Your task to perform on an android device: turn off priority inbox in the gmail app Image 0: 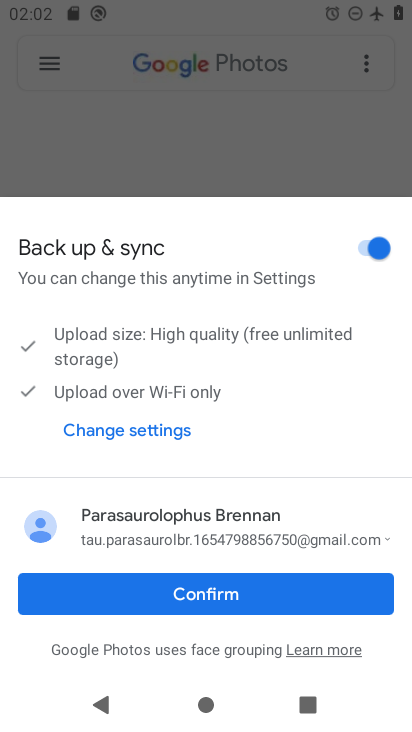
Step 0: press home button
Your task to perform on an android device: turn off priority inbox in the gmail app Image 1: 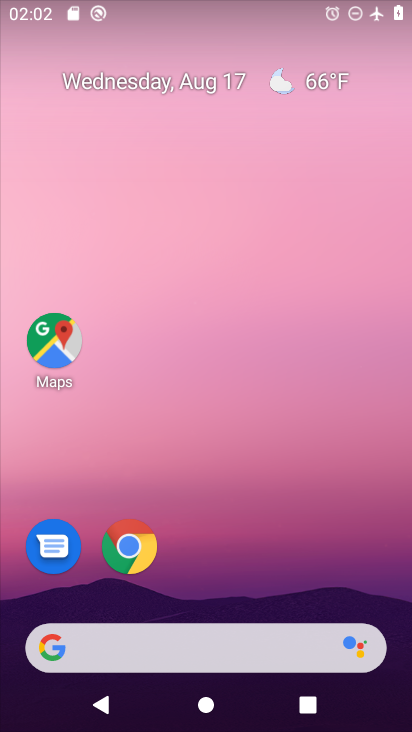
Step 1: drag from (191, 596) to (195, 330)
Your task to perform on an android device: turn off priority inbox in the gmail app Image 2: 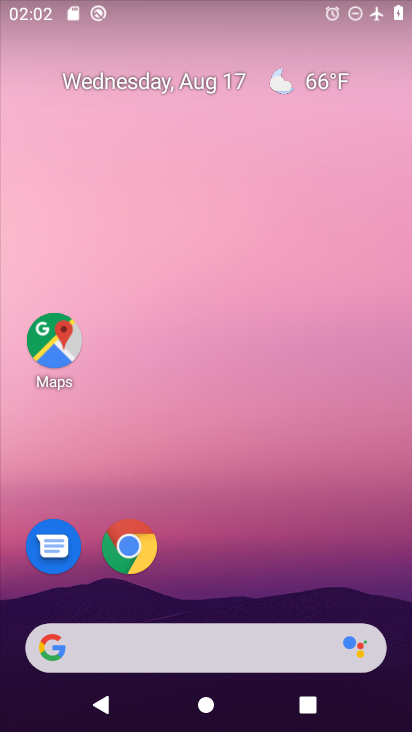
Step 2: drag from (215, 566) to (210, 268)
Your task to perform on an android device: turn off priority inbox in the gmail app Image 3: 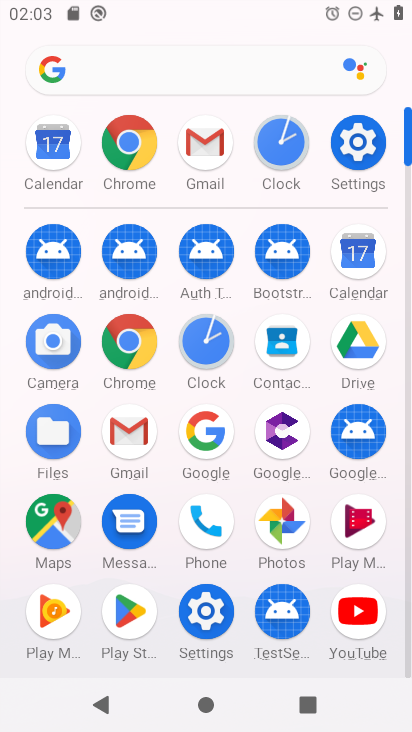
Step 3: click (204, 136)
Your task to perform on an android device: turn off priority inbox in the gmail app Image 4: 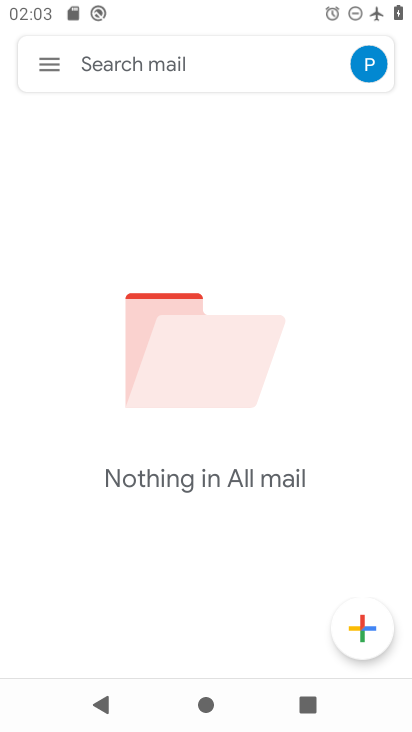
Step 4: click (47, 62)
Your task to perform on an android device: turn off priority inbox in the gmail app Image 5: 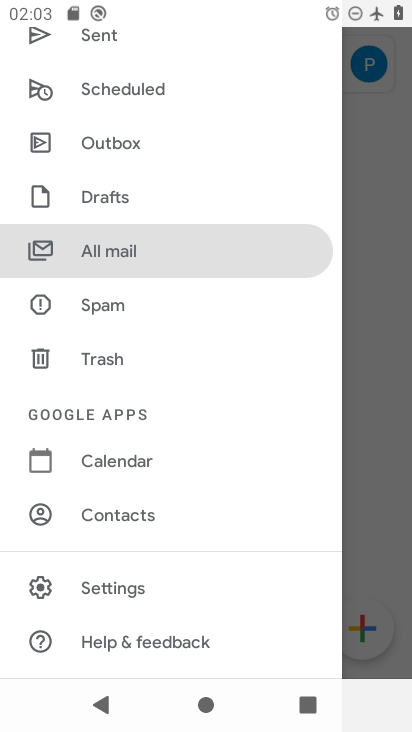
Step 5: click (118, 587)
Your task to perform on an android device: turn off priority inbox in the gmail app Image 6: 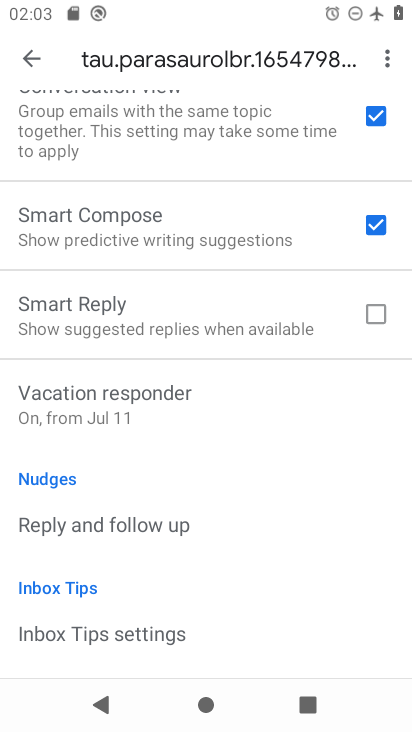
Step 6: drag from (212, 159) to (191, 602)
Your task to perform on an android device: turn off priority inbox in the gmail app Image 7: 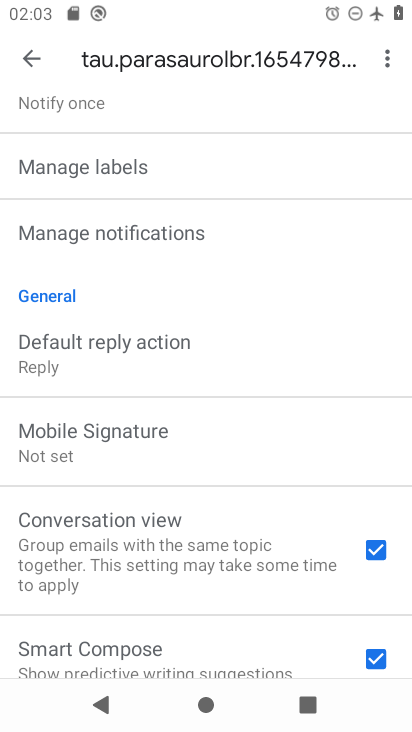
Step 7: drag from (189, 158) to (186, 441)
Your task to perform on an android device: turn off priority inbox in the gmail app Image 8: 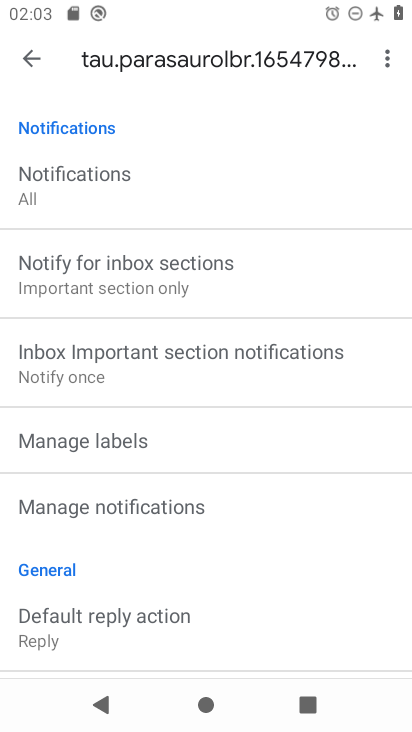
Step 8: drag from (186, 201) to (209, 568)
Your task to perform on an android device: turn off priority inbox in the gmail app Image 9: 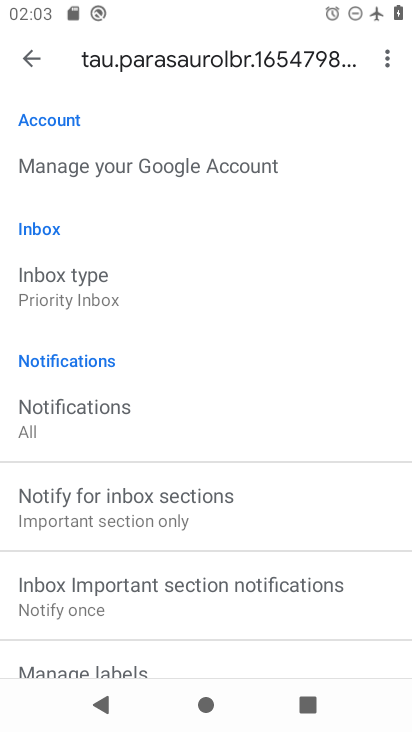
Step 9: click (59, 292)
Your task to perform on an android device: turn off priority inbox in the gmail app Image 10: 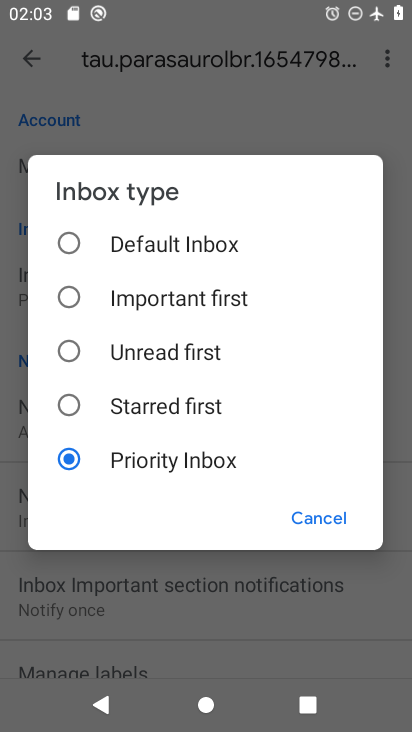
Step 10: click (72, 239)
Your task to perform on an android device: turn off priority inbox in the gmail app Image 11: 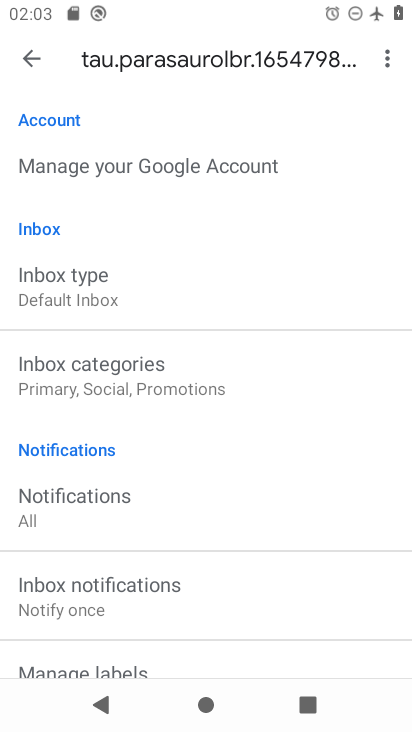
Step 11: task complete